Your task to perform on an android device: Turn on the flashlight Image 0: 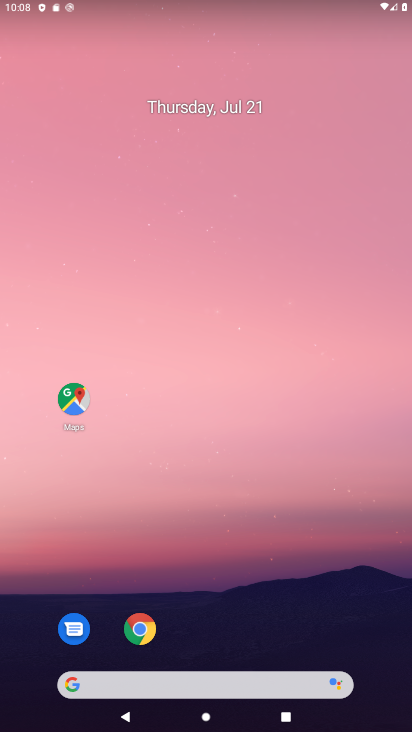
Step 0: drag from (198, 510) to (227, 313)
Your task to perform on an android device: Turn on the flashlight Image 1: 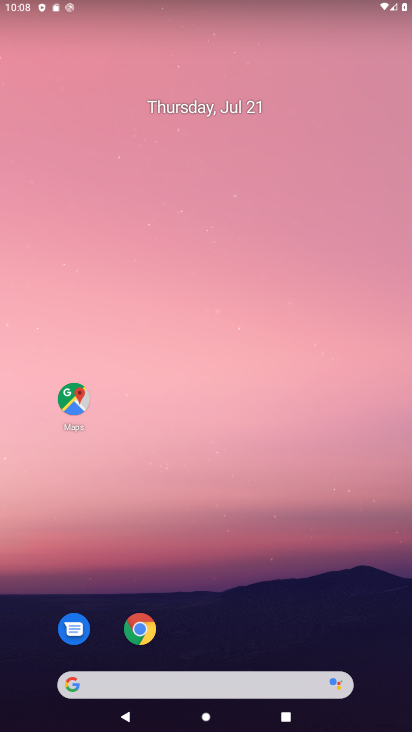
Step 1: task complete